Your task to perform on an android device: read, delete, or share a saved page in the chrome app Image 0: 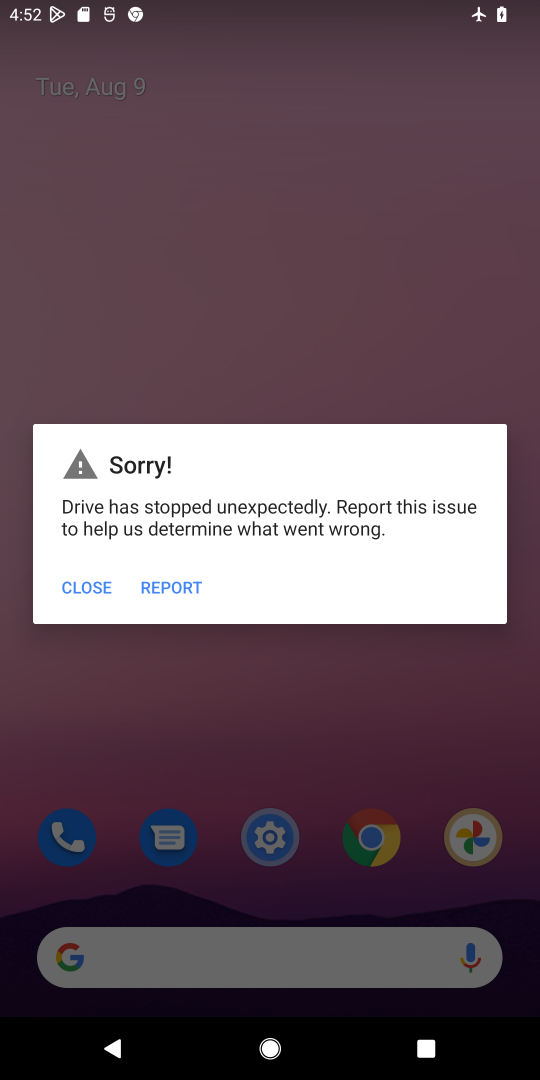
Step 0: press home button
Your task to perform on an android device: read, delete, or share a saved page in the chrome app Image 1: 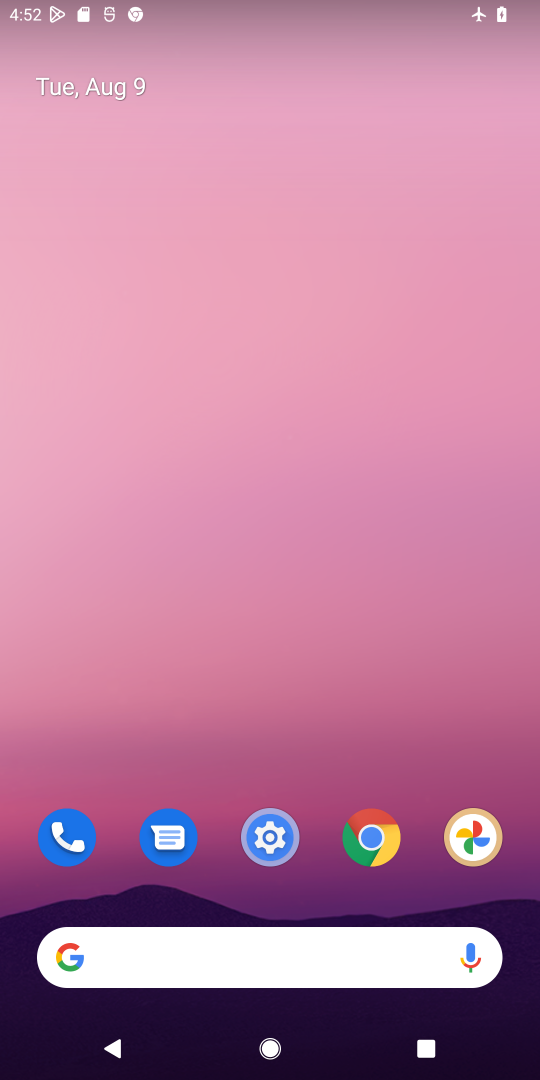
Step 1: drag from (308, 974) to (278, 95)
Your task to perform on an android device: read, delete, or share a saved page in the chrome app Image 2: 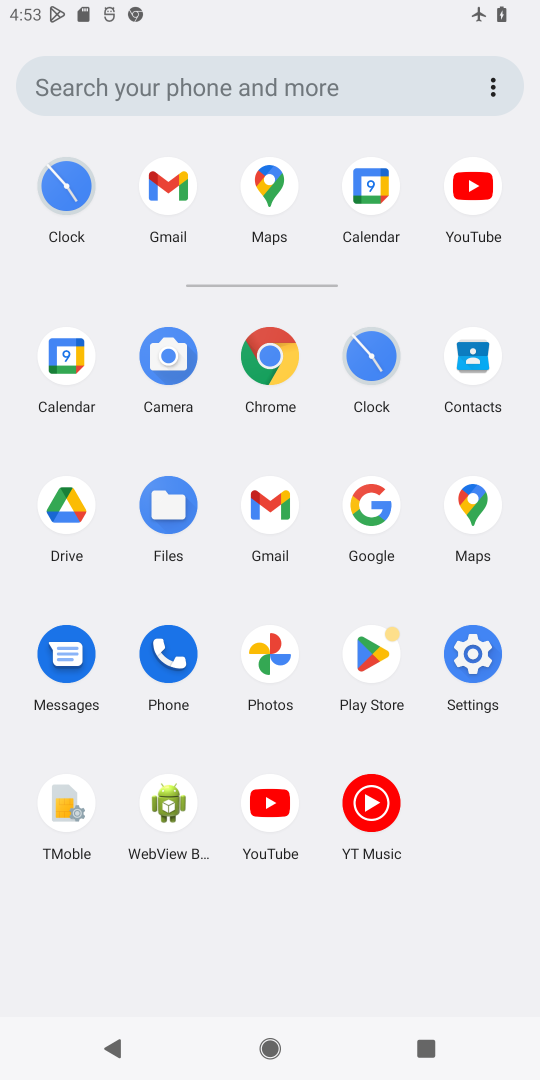
Step 2: click (268, 366)
Your task to perform on an android device: read, delete, or share a saved page in the chrome app Image 3: 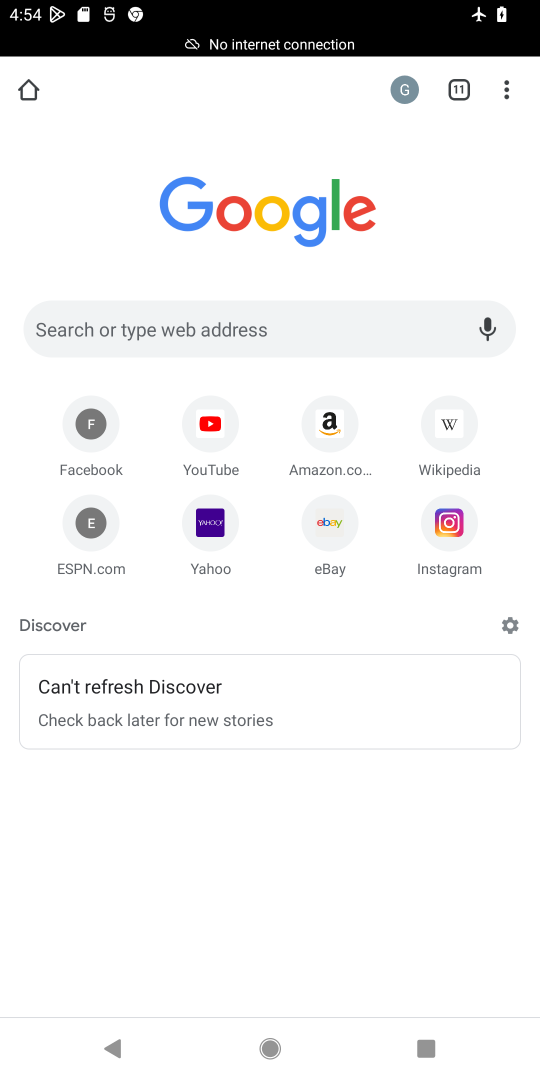
Step 3: click (512, 89)
Your task to perform on an android device: read, delete, or share a saved page in the chrome app Image 4: 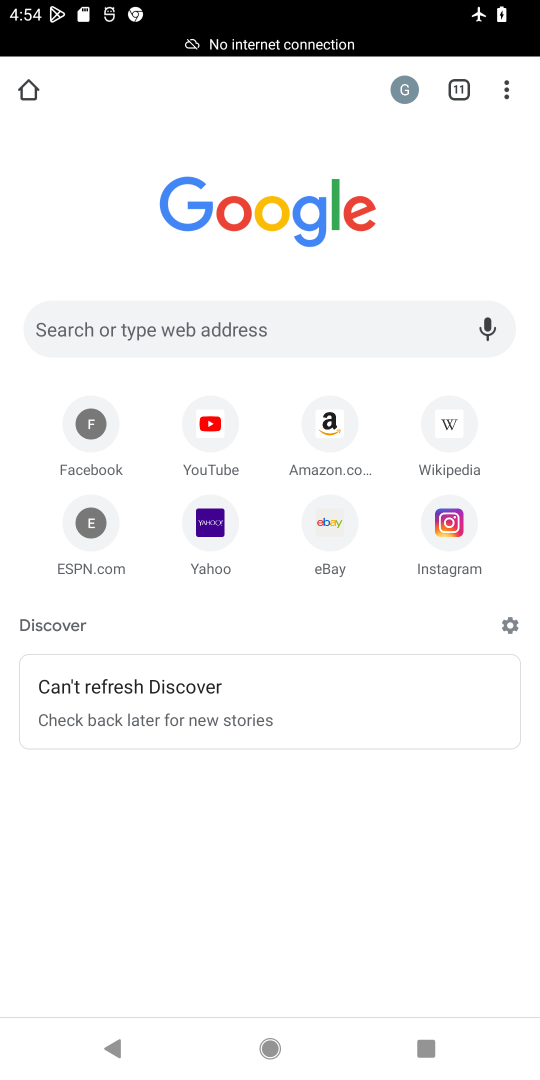
Step 4: click (512, 89)
Your task to perform on an android device: read, delete, or share a saved page in the chrome app Image 5: 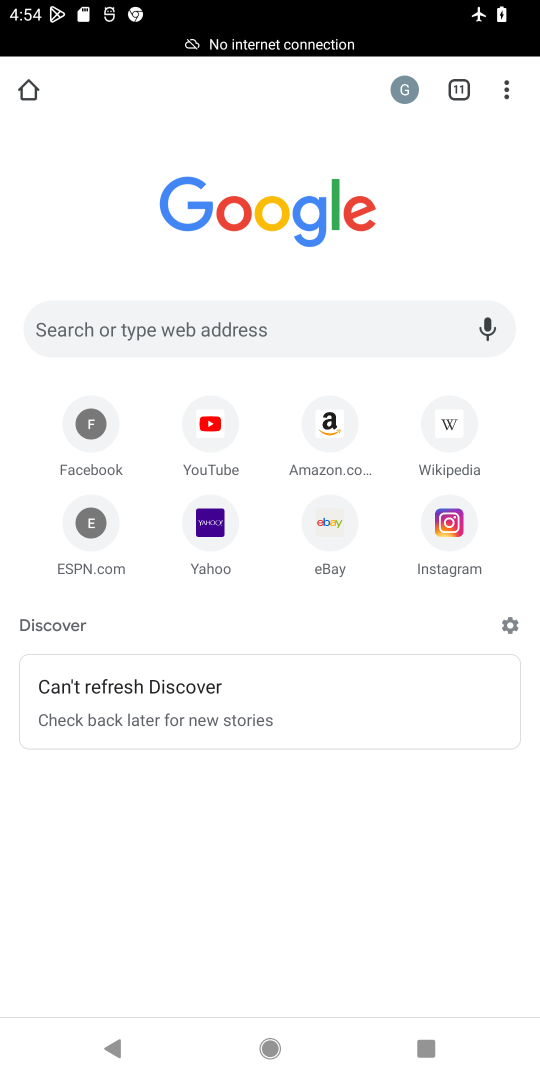
Step 5: click (512, 89)
Your task to perform on an android device: read, delete, or share a saved page in the chrome app Image 6: 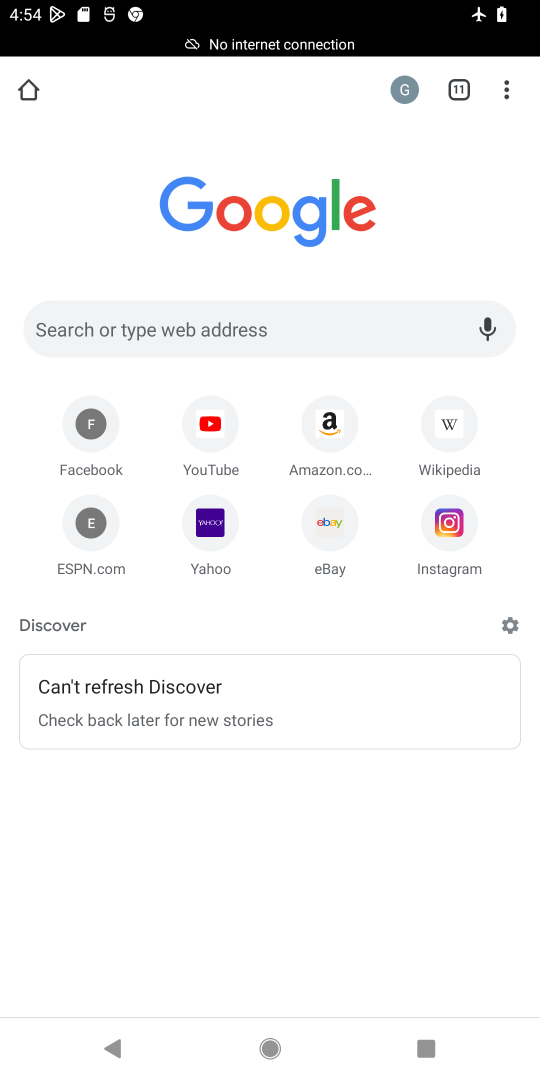
Step 6: click (512, 89)
Your task to perform on an android device: read, delete, or share a saved page in the chrome app Image 7: 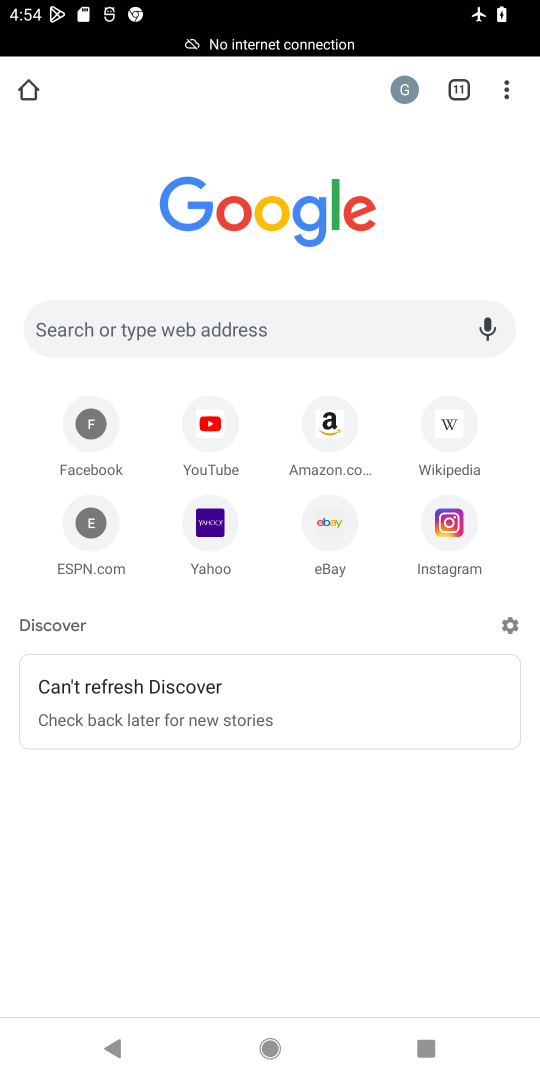
Step 7: click (512, 89)
Your task to perform on an android device: read, delete, or share a saved page in the chrome app Image 8: 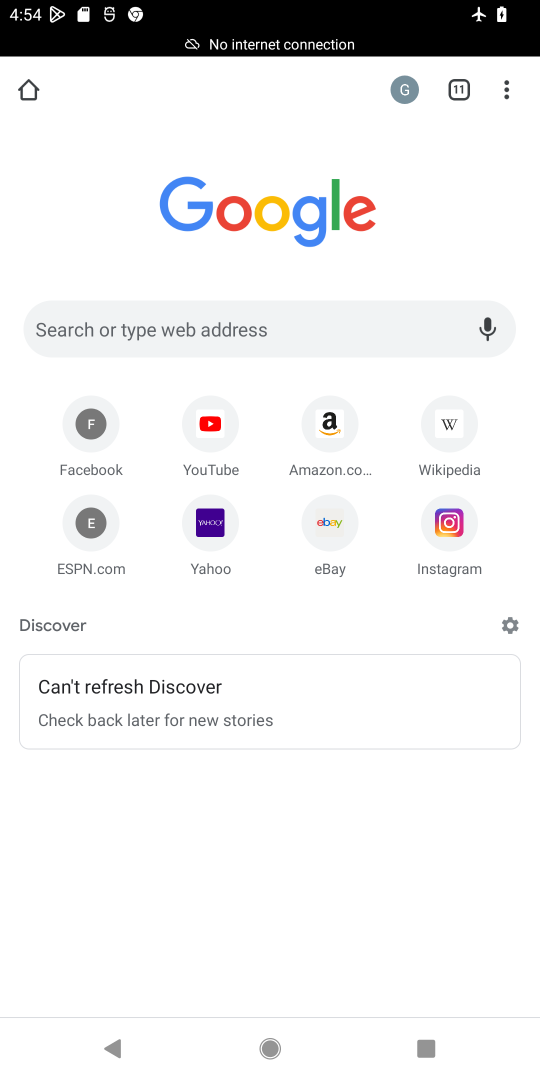
Step 8: click (512, 89)
Your task to perform on an android device: read, delete, or share a saved page in the chrome app Image 9: 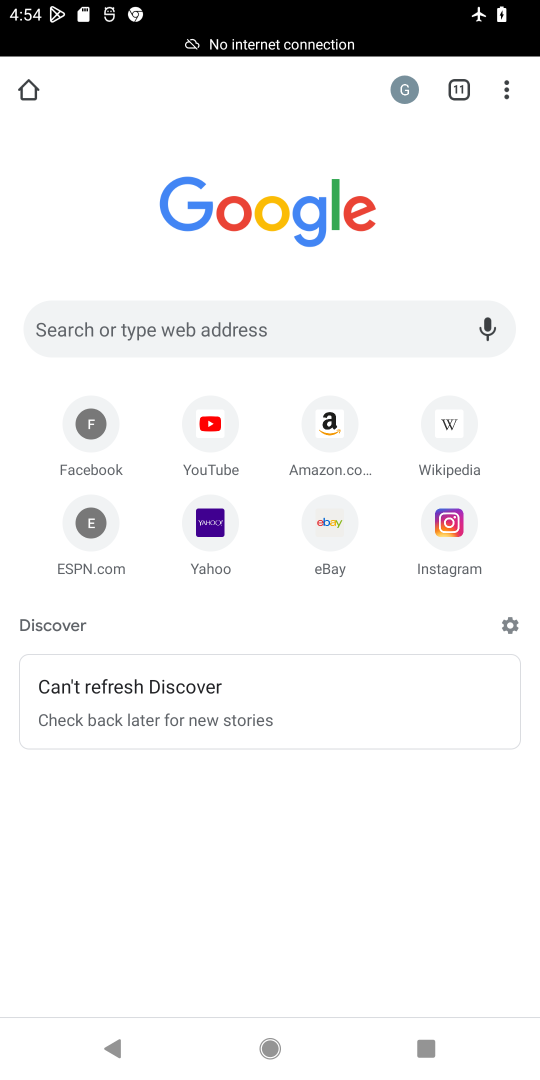
Step 9: click (495, 86)
Your task to perform on an android device: read, delete, or share a saved page in the chrome app Image 10: 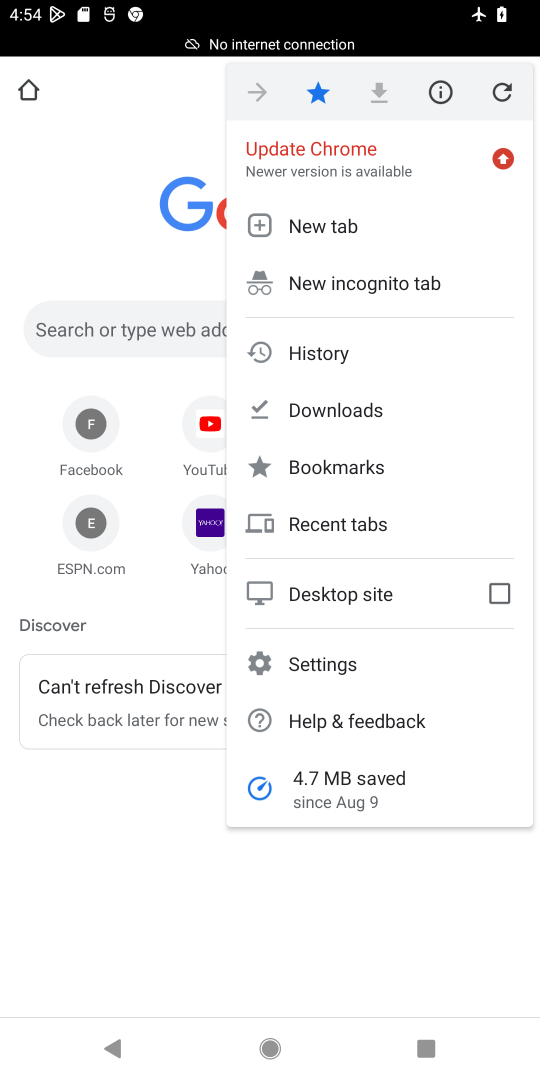
Step 10: drag from (313, 614) to (292, 123)
Your task to perform on an android device: read, delete, or share a saved page in the chrome app Image 11: 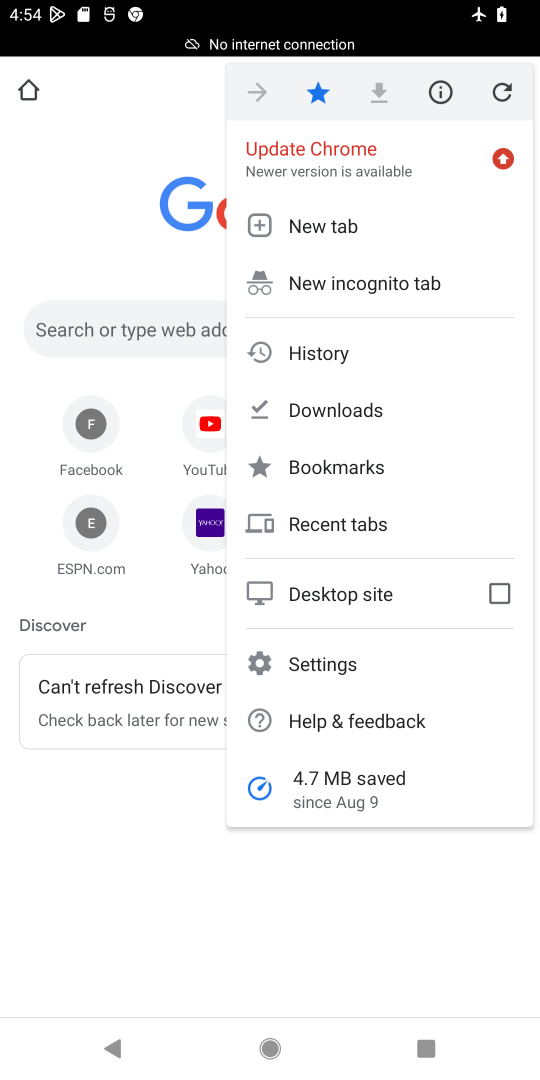
Step 11: click (337, 668)
Your task to perform on an android device: read, delete, or share a saved page in the chrome app Image 12: 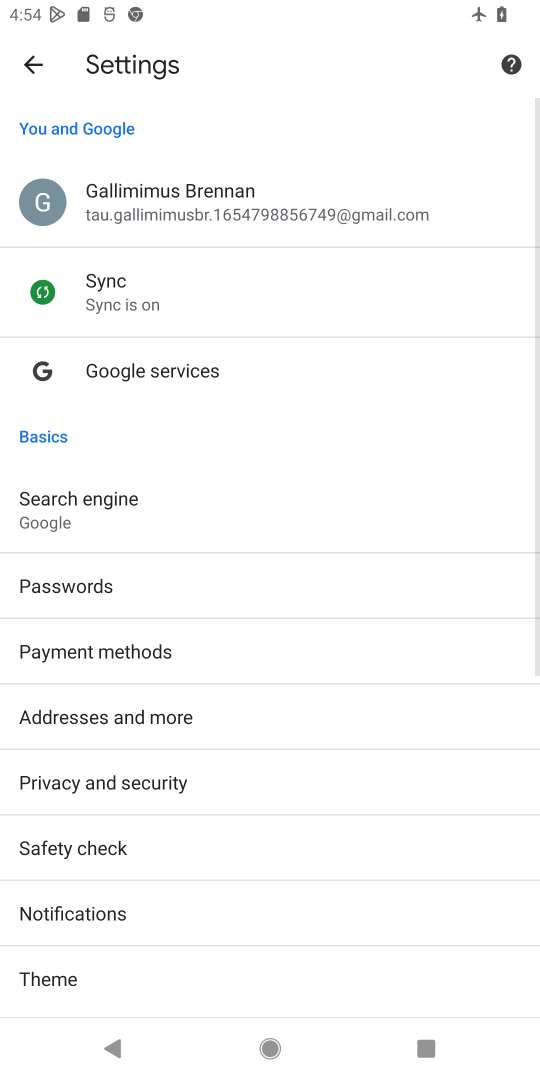
Step 12: task complete